Your task to perform on an android device: change timer sound Image 0: 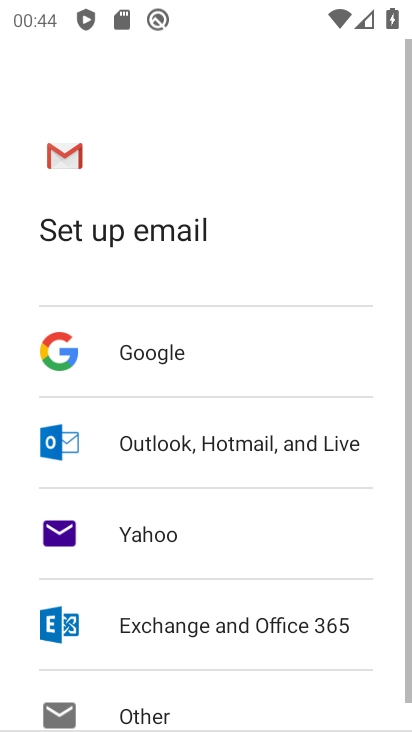
Step 0: press home button
Your task to perform on an android device: change timer sound Image 1: 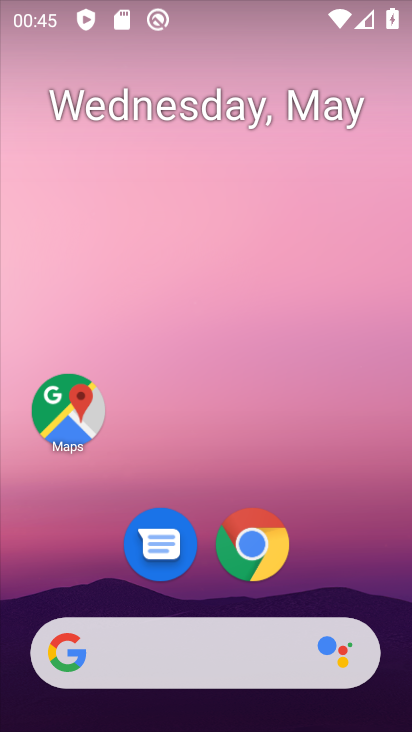
Step 1: drag from (348, 542) to (315, 140)
Your task to perform on an android device: change timer sound Image 2: 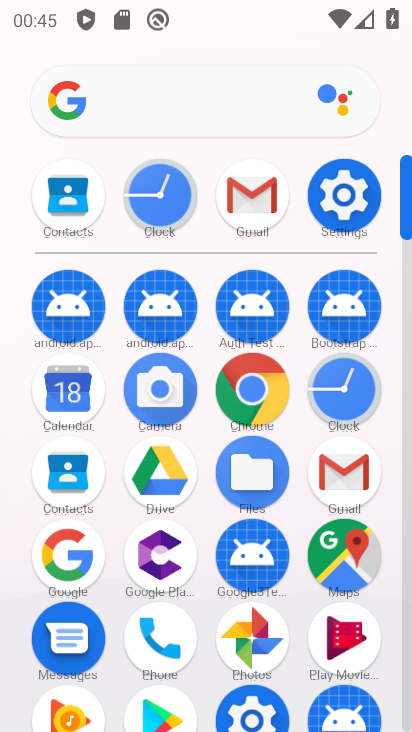
Step 2: click (321, 183)
Your task to perform on an android device: change timer sound Image 3: 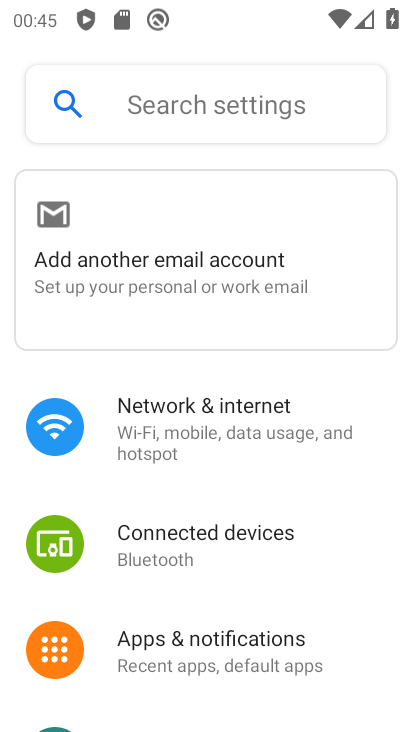
Step 3: drag from (226, 547) to (304, 130)
Your task to perform on an android device: change timer sound Image 4: 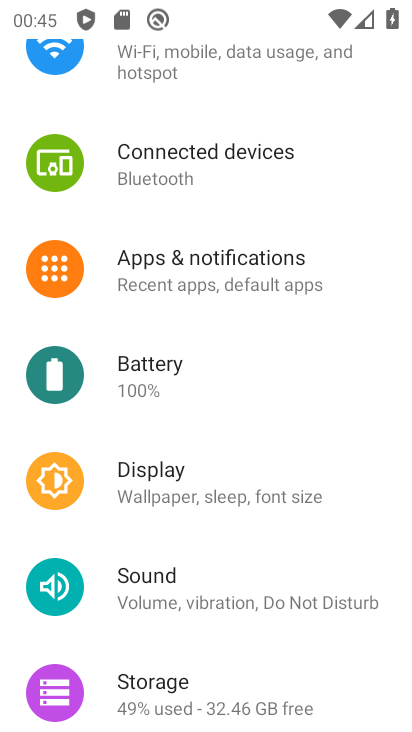
Step 4: click (196, 591)
Your task to perform on an android device: change timer sound Image 5: 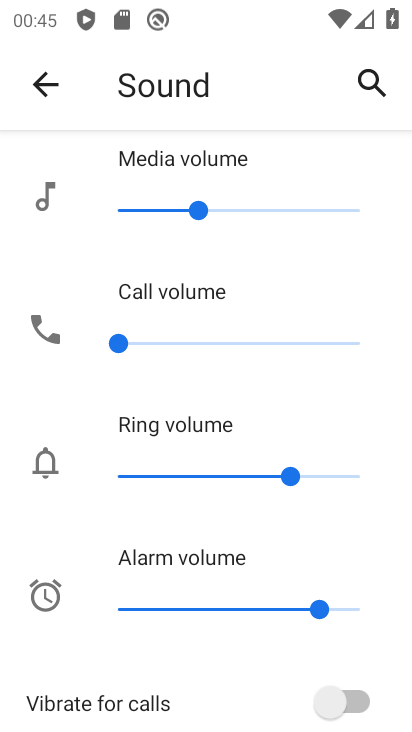
Step 5: press home button
Your task to perform on an android device: change timer sound Image 6: 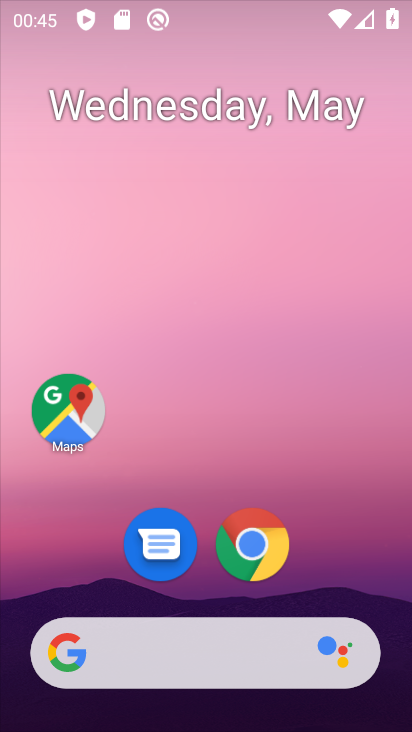
Step 6: drag from (319, 480) to (355, 148)
Your task to perform on an android device: change timer sound Image 7: 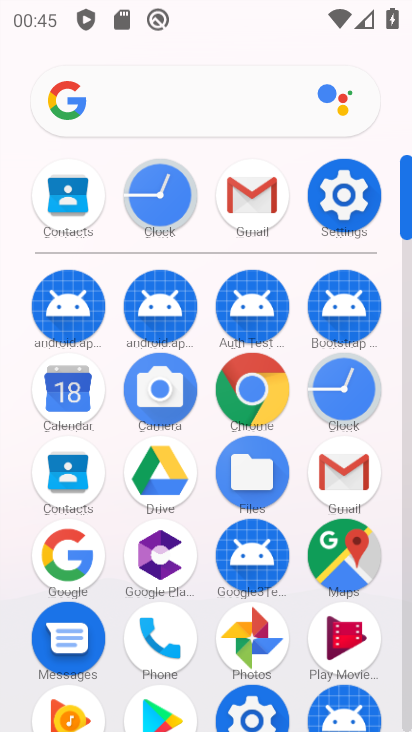
Step 7: click (333, 383)
Your task to perform on an android device: change timer sound Image 8: 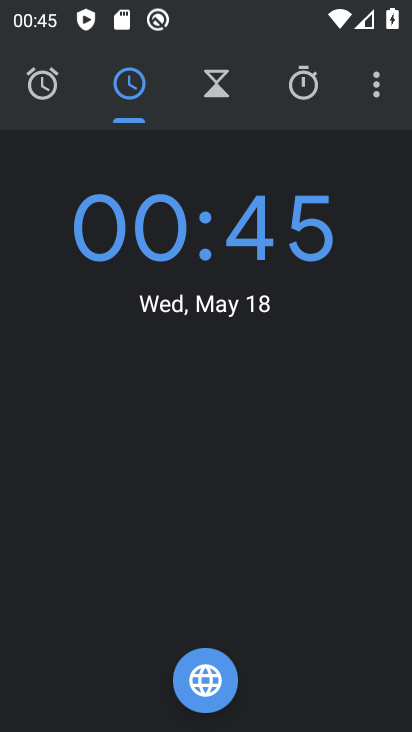
Step 8: drag from (367, 77) to (277, 153)
Your task to perform on an android device: change timer sound Image 9: 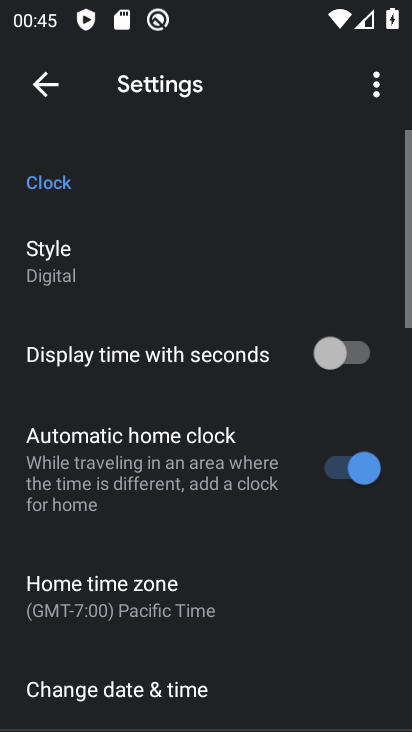
Step 9: drag from (168, 577) to (311, 188)
Your task to perform on an android device: change timer sound Image 10: 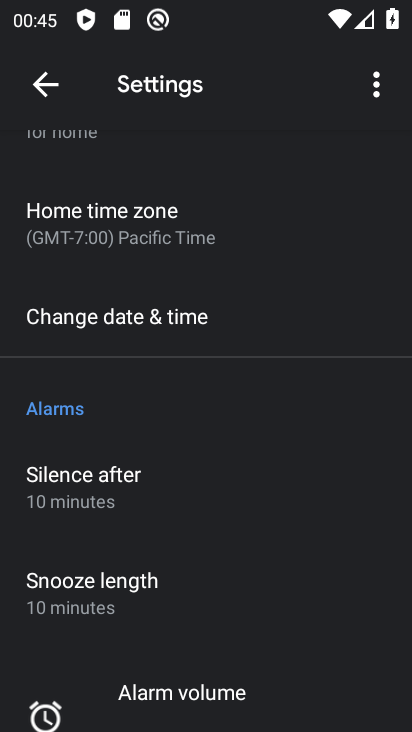
Step 10: drag from (213, 549) to (295, 162)
Your task to perform on an android device: change timer sound Image 11: 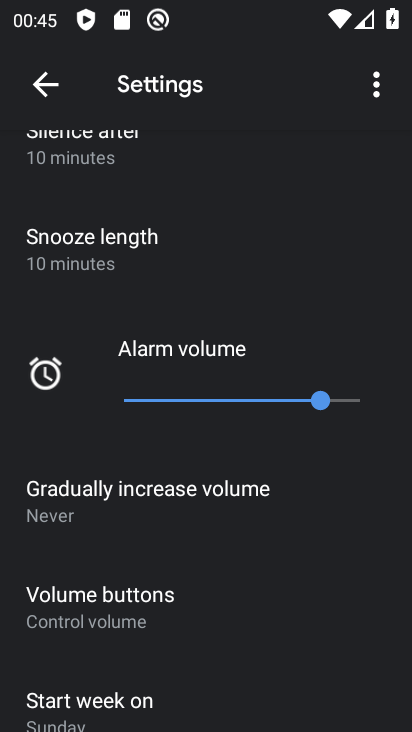
Step 11: drag from (191, 610) to (311, 277)
Your task to perform on an android device: change timer sound Image 12: 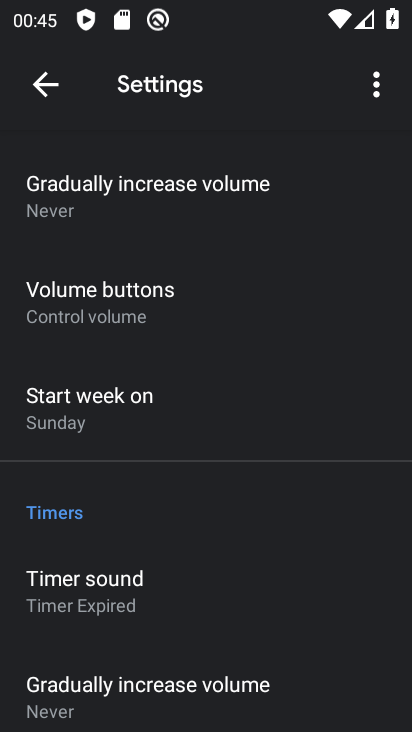
Step 12: click (112, 583)
Your task to perform on an android device: change timer sound Image 13: 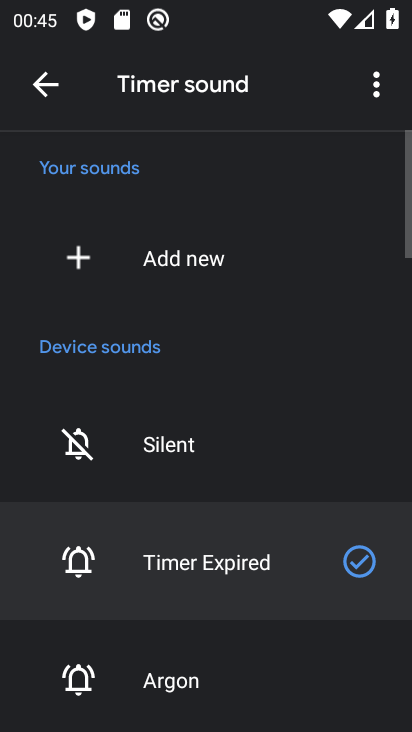
Step 13: click (186, 664)
Your task to perform on an android device: change timer sound Image 14: 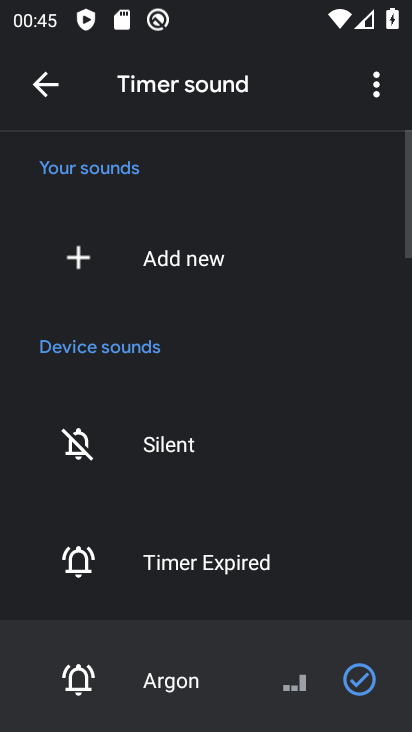
Step 14: task complete